Your task to perform on an android device: What is the recent news? Image 0: 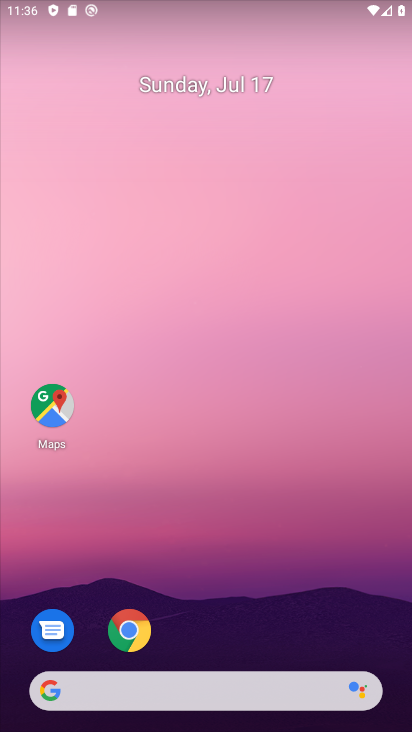
Step 0: drag from (293, 653) to (226, 206)
Your task to perform on an android device: What is the recent news? Image 1: 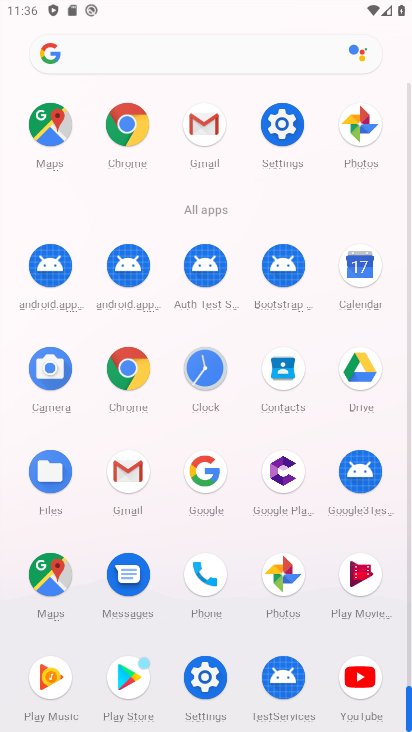
Step 1: click (114, 130)
Your task to perform on an android device: What is the recent news? Image 2: 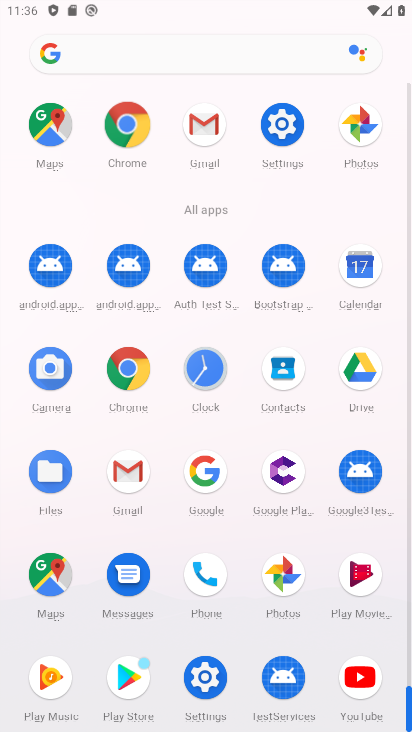
Step 2: click (127, 137)
Your task to perform on an android device: What is the recent news? Image 3: 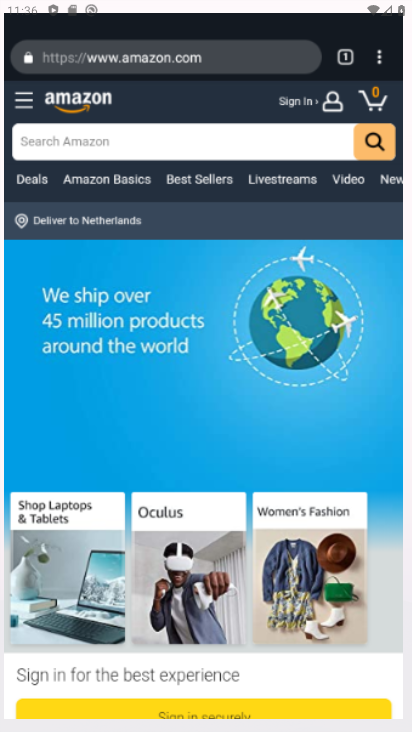
Step 3: click (130, 139)
Your task to perform on an android device: What is the recent news? Image 4: 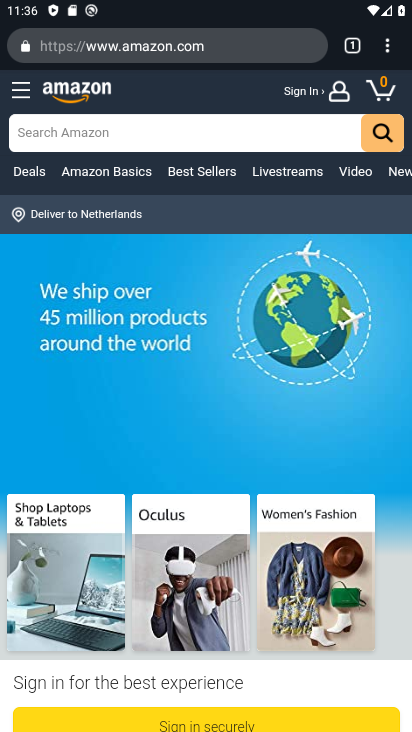
Step 4: drag from (386, 44) to (215, 88)
Your task to perform on an android device: What is the recent news? Image 5: 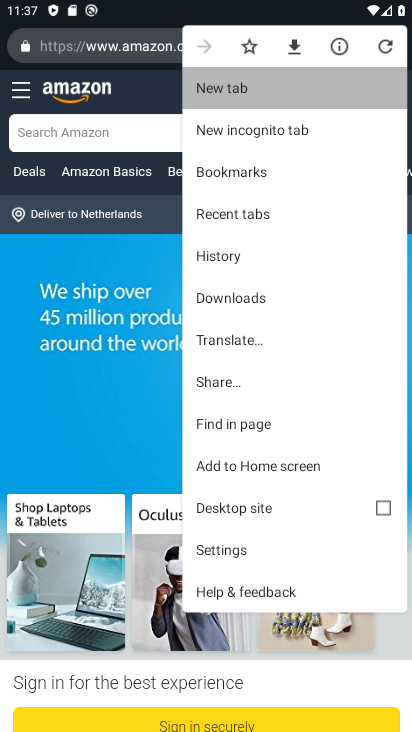
Step 5: click (215, 88)
Your task to perform on an android device: What is the recent news? Image 6: 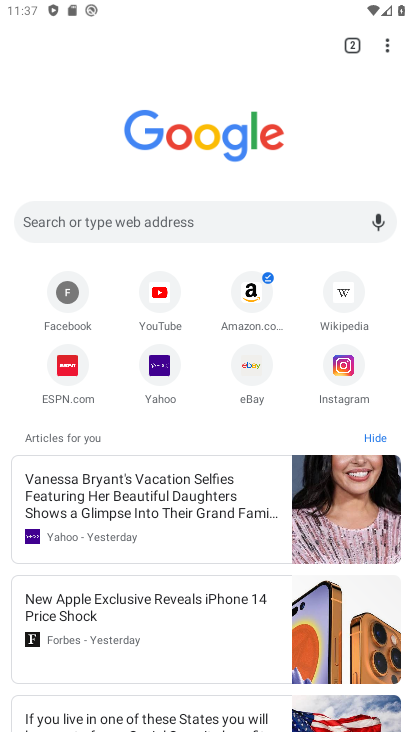
Step 6: task complete